Your task to perform on an android device: find which apps use the phone's location Image 0: 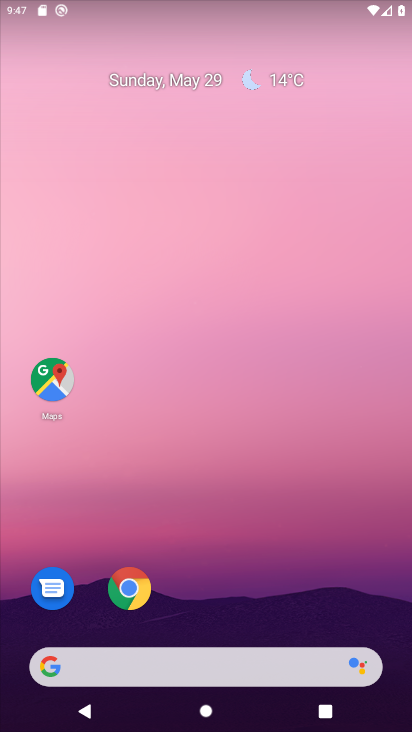
Step 0: drag from (197, 404) to (171, 161)
Your task to perform on an android device: find which apps use the phone's location Image 1: 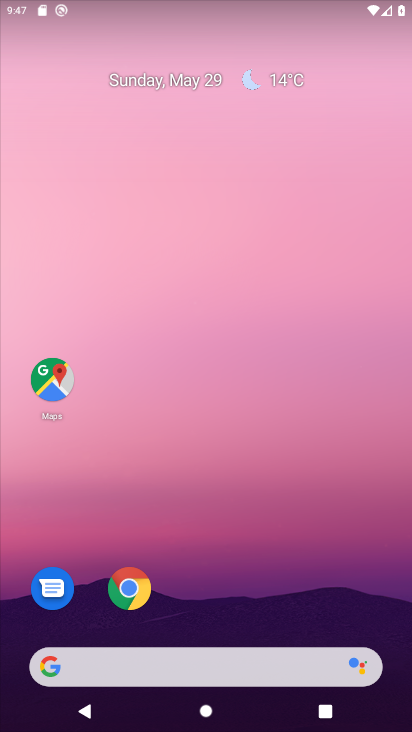
Step 1: drag from (273, 716) to (214, 84)
Your task to perform on an android device: find which apps use the phone's location Image 2: 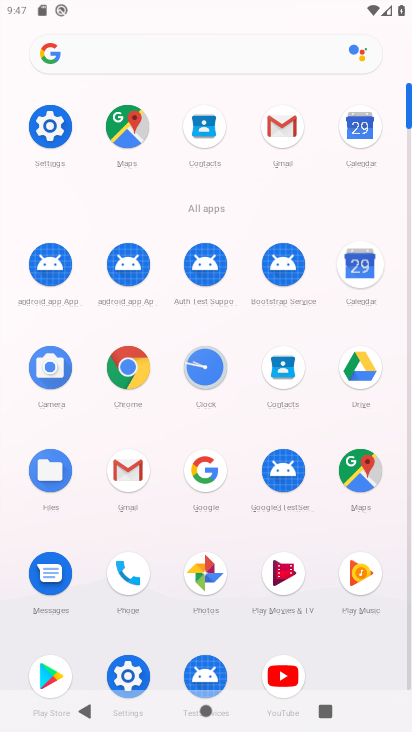
Step 2: click (132, 672)
Your task to perform on an android device: find which apps use the phone's location Image 3: 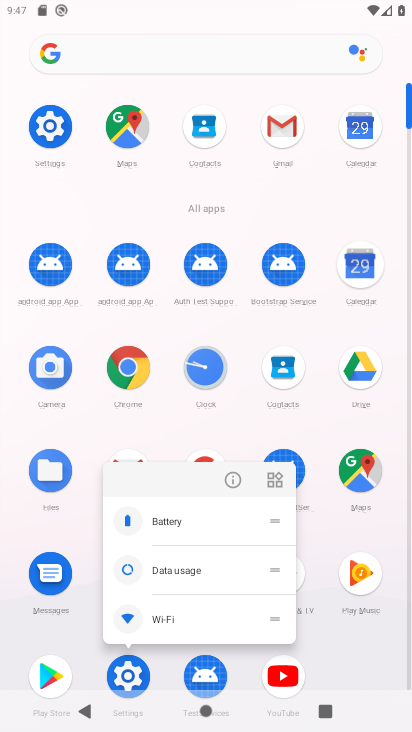
Step 3: click (132, 671)
Your task to perform on an android device: find which apps use the phone's location Image 4: 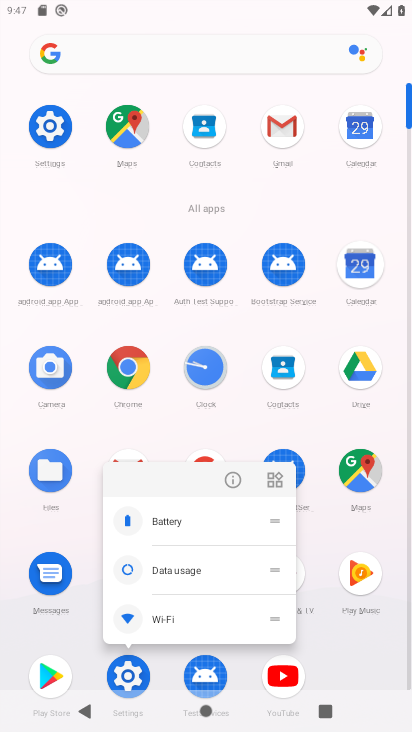
Step 4: click (132, 671)
Your task to perform on an android device: find which apps use the phone's location Image 5: 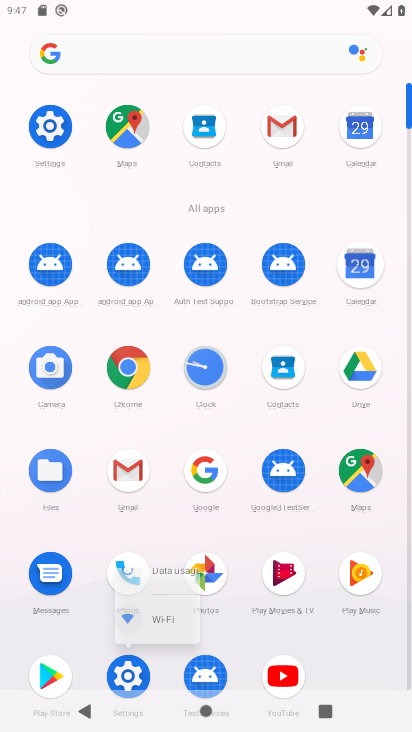
Step 5: click (132, 671)
Your task to perform on an android device: find which apps use the phone's location Image 6: 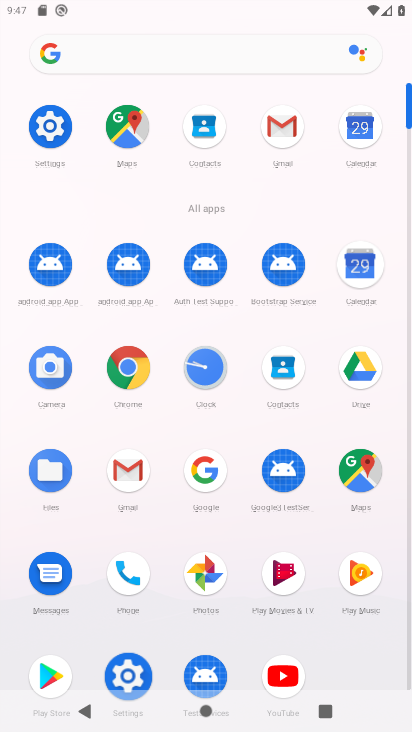
Step 6: click (132, 671)
Your task to perform on an android device: find which apps use the phone's location Image 7: 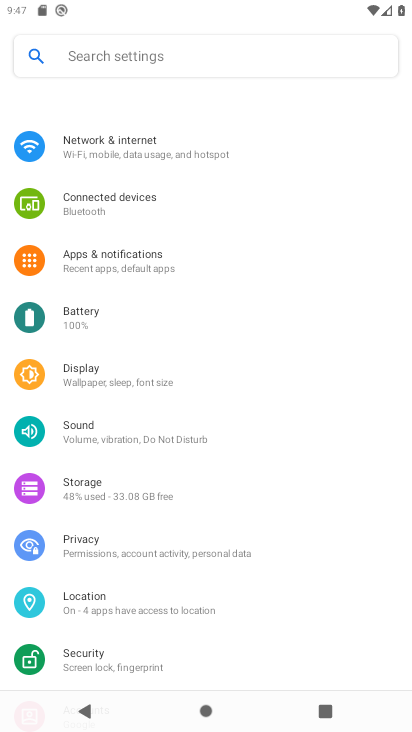
Step 7: click (130, 678)
Your task to perform on an android device: find which apps use the phone's location Image 8: 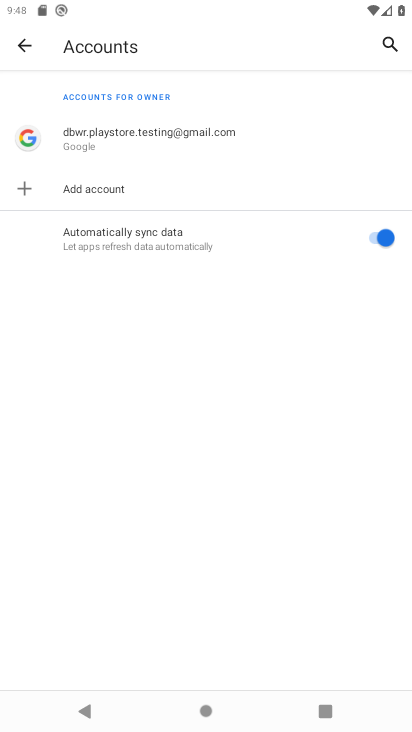
Step 8: click (24, 46)
Your task to perform on an android device: find which apps use the phone's location Image 9: 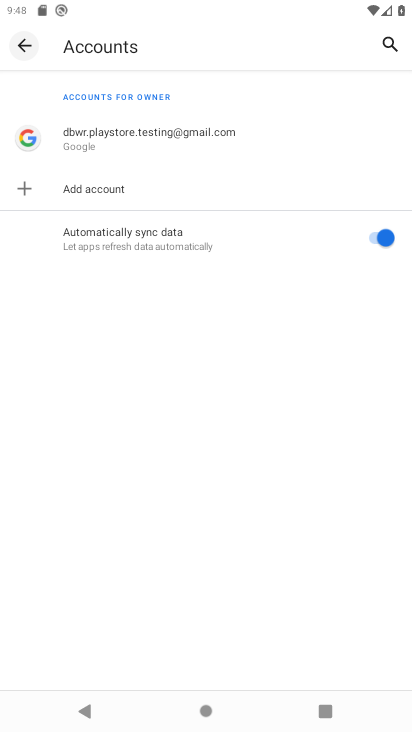
Step 9: click (26, 45)
Your task to perform on an android device: find which apps use the phone's location Image 10: 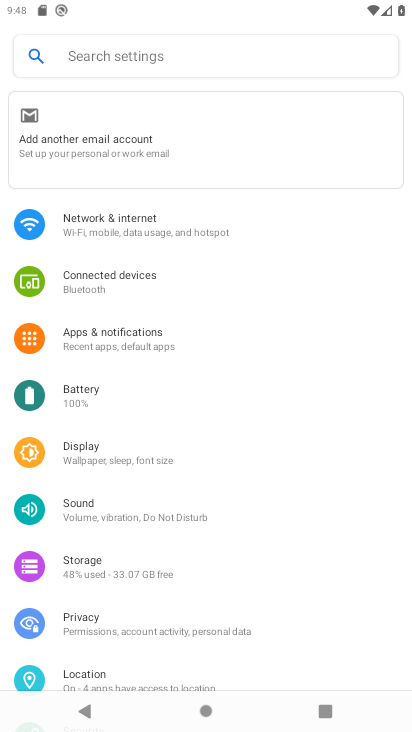
Step 10: drag from (134, 602) to (160, 200)
Your task to perform on an android device: find which apps use the phone's location Image 11: 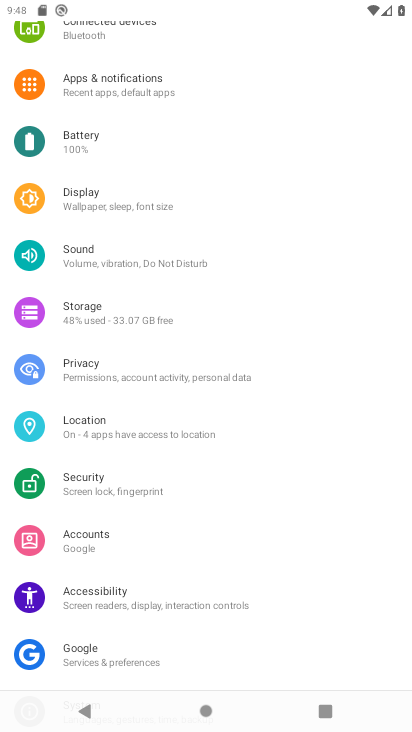
Step 11: drag from (129, 467) to (139, 163)
Your task to perform on an android device: find which apps use the phone's location Image 12: 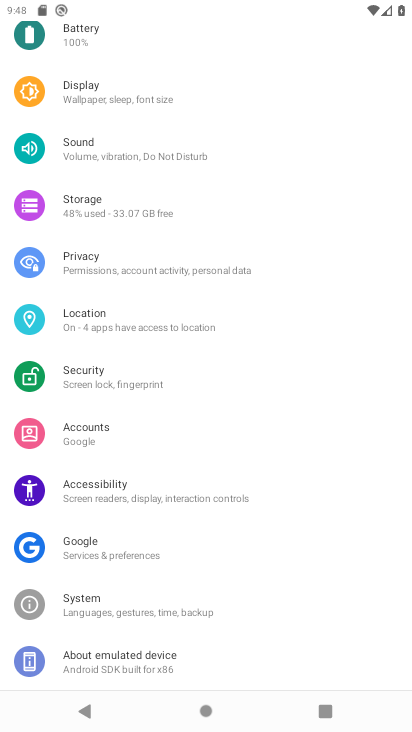
Step 12: click (95, 317)
Your task to perform on an android device: find which apps use the phone's location Image 13: 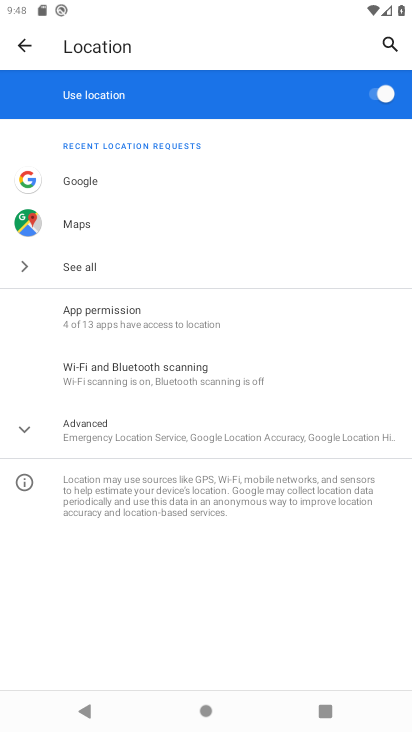
Step 13: click (103, 312)
Your task to perform on an android device: find which apps use the phone's location Image 14: 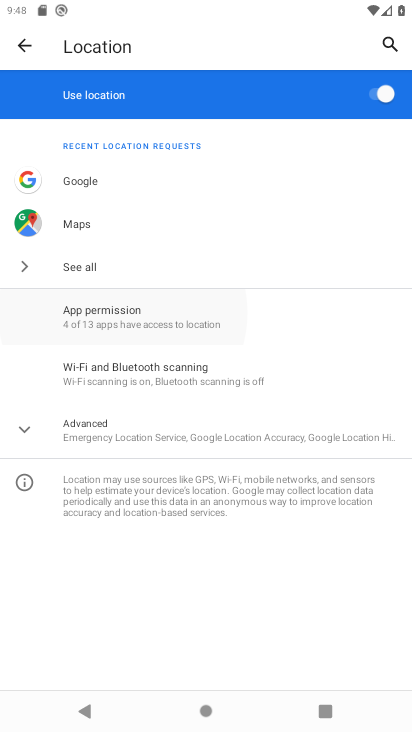
Step 14: click (104, 309)
Your task to perform on an android device: find which apps use the phone's location Image 15: 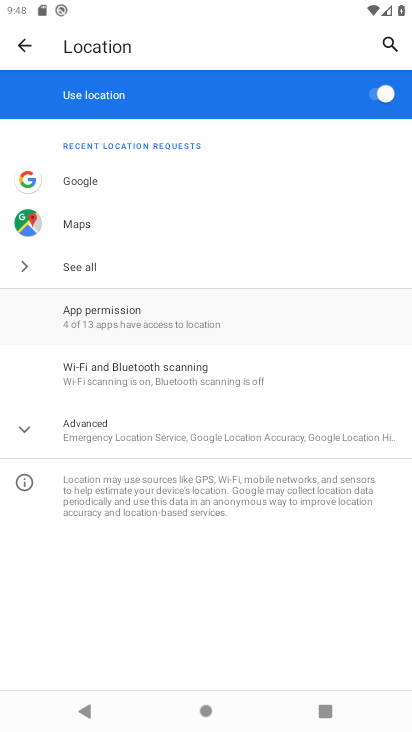
Step 15: click (104, 309)
Your task to perform on an android device: find which apps use the phone's location Image 16: 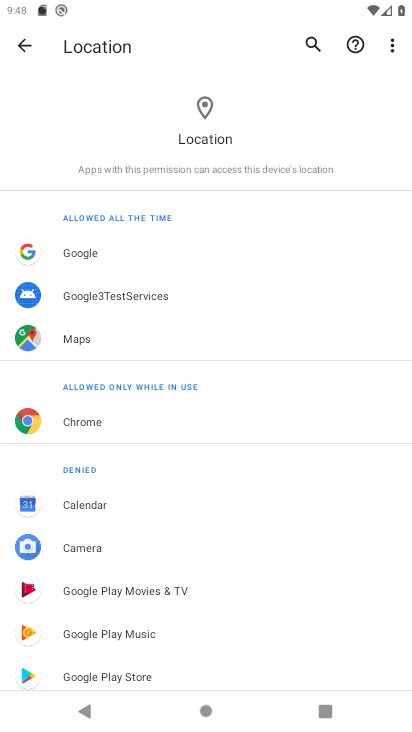
Step 16: drag from (169, 534) to (169, 162)
Your task to perform on an android device: find which apps use the phone's location Image 17: 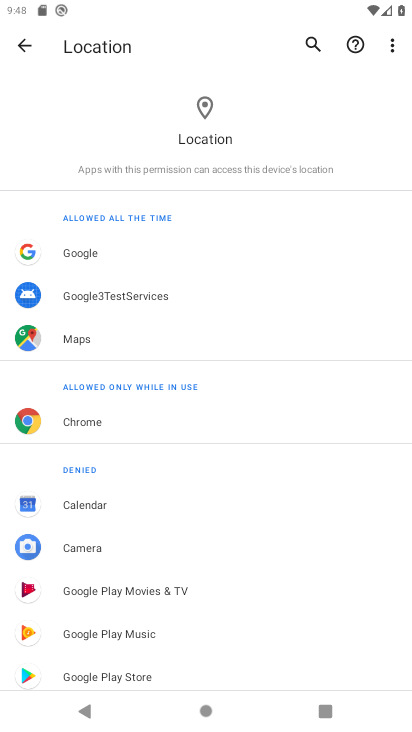
Step 17: drag from (117, 487) to (108, 247)
Your task to perform on an android device: find which apps use the phone's location Image 18: 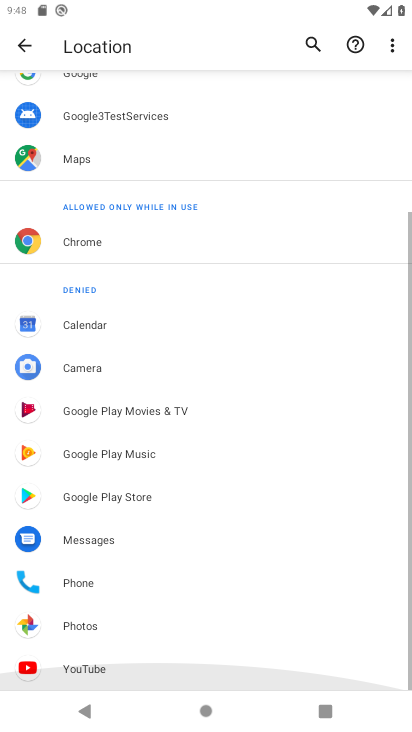
Step 18: drag from (103, 439) to (103, 193)
Your task to perform on an android device: find which apps use the phone's location Image 19: 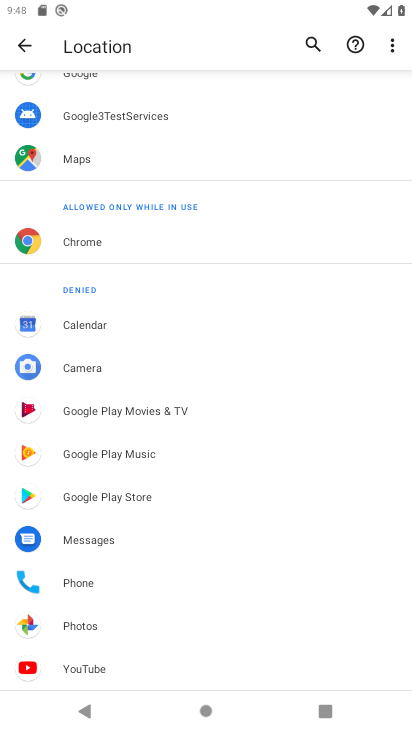
Step 19: drag from (82, 448) to (101, 296)
Your task to perform on an android device: find which apps use the phone's location Image 20: 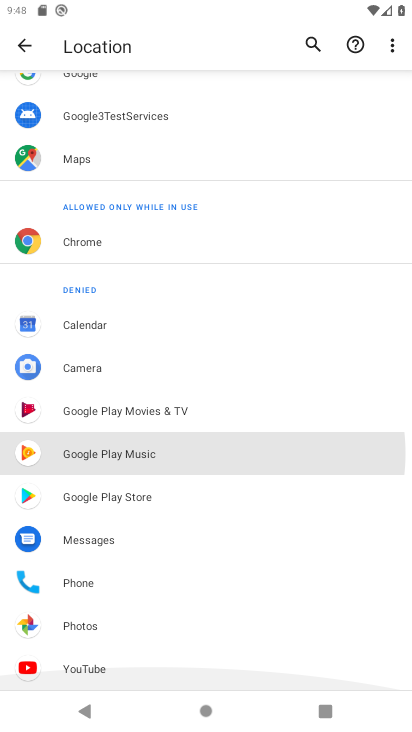
Step 20: drag from (115, 494) to (136, 330)
Your task to perform on an android device: find which apps use the phone's location Image 21: 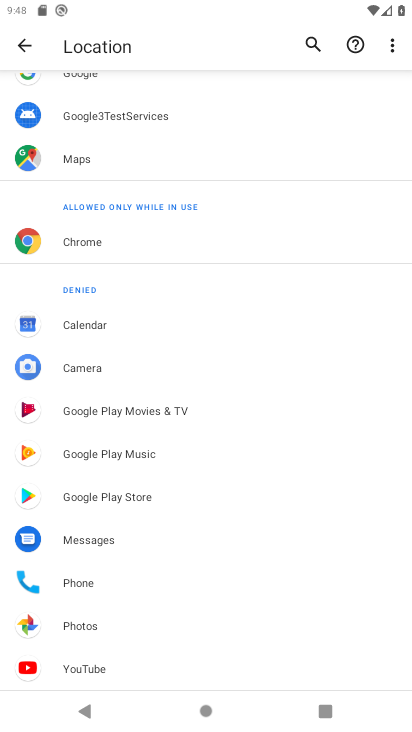
Step 21: drag from (121, 213) to (121, 178)
Your task to perform on an android device: find which apps use the phone's location Image 22: 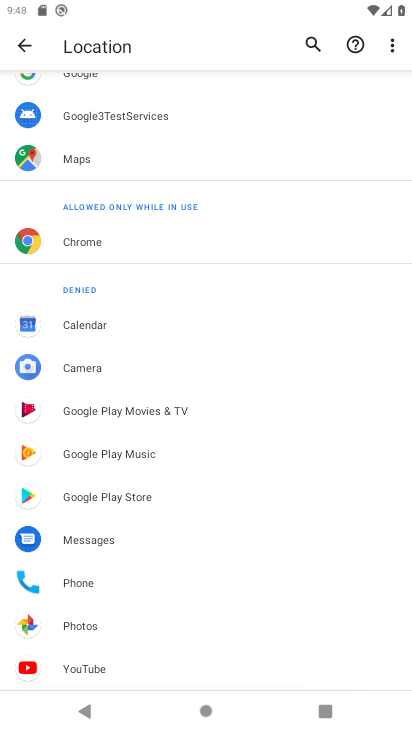
Step 22: drag from (117, 164) to (117, 105)
Your task to perform on an android device: find which apps use the phone's location Image 23: 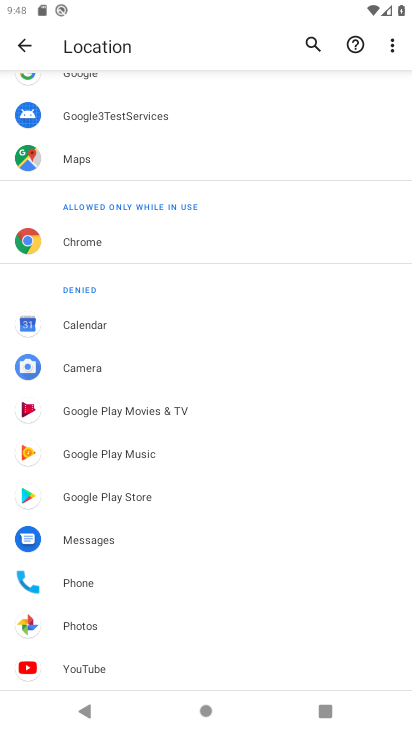
Step 23: drag from (140, 295) to (140, 154)
Your task to perform on an android device: find which apps use the phone's location Image 24: 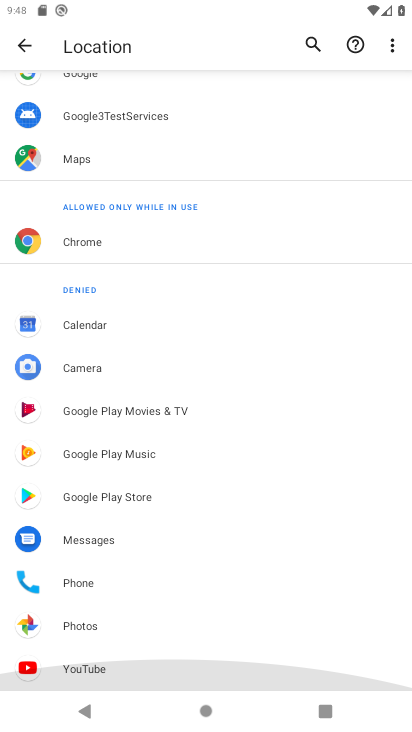
Step 24: drag from (137, 407) to (137, 170)
Your task to perform on an android device: find which apps use the phone's location Image 25: 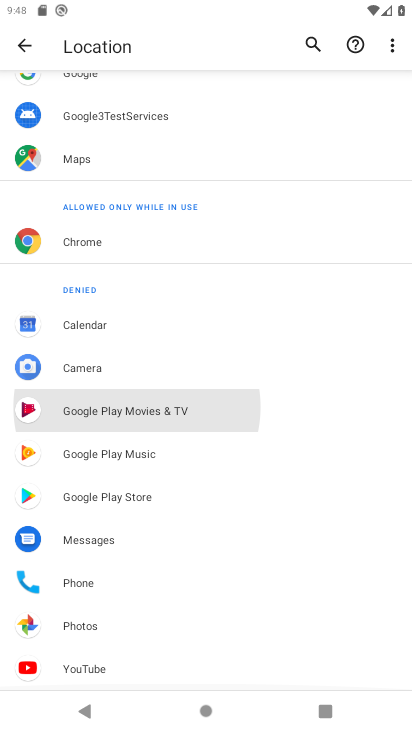
Step 25: drag from (149, 481) to (139, 213)
Your task to perform on an android device: find which apps use the phone's location Image 26: 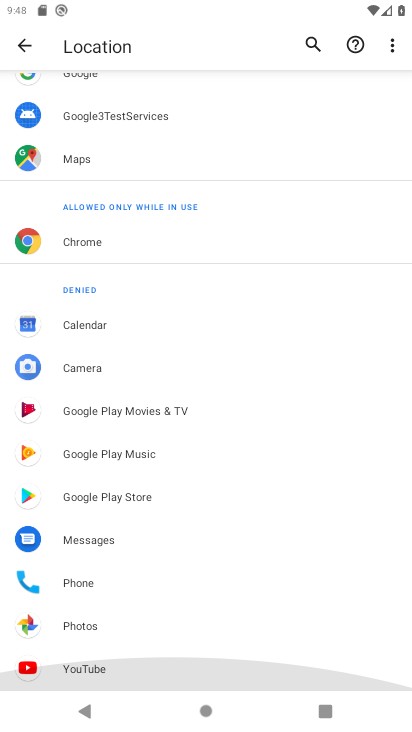
Step 26: drag from (139, 163) to (139, 641)
Your task to perform on an android device: find which apps use the phone's location Image 27: 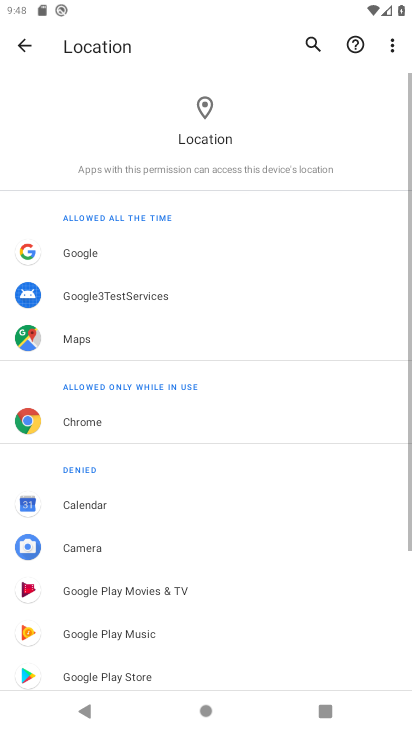
Step 27: drag from (120, 298) to (133, 694)
Your task to perform on an android device: find which apps use the phone's location Image 28: 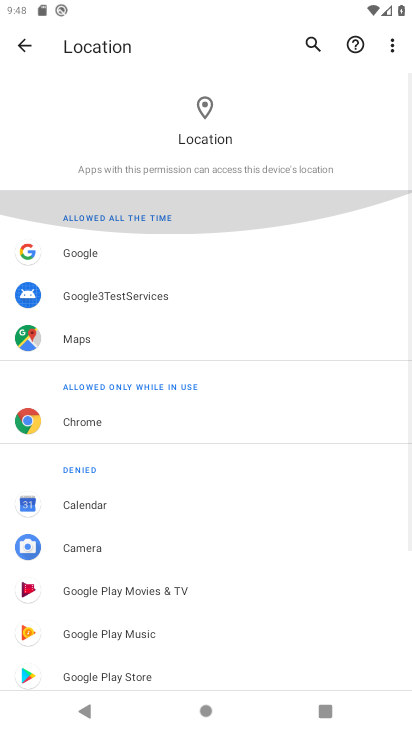
Step 28: click (236, 634)
Your task to perform on an android device: find which apps use the phone's location Image 29: 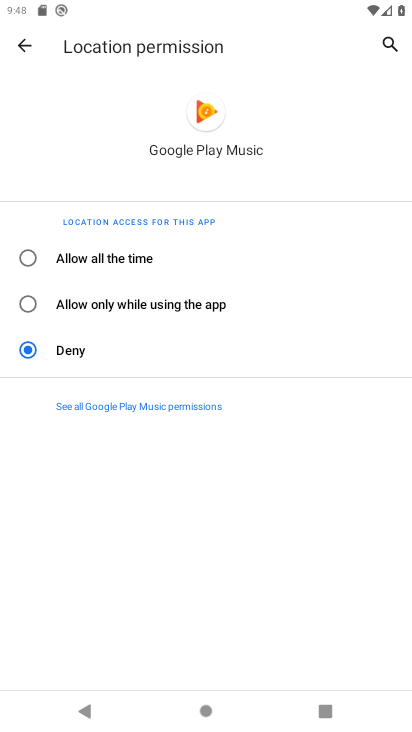
Step 29: task complete